Your task to perform on an android device: find which apps use the phone's location Image 0: 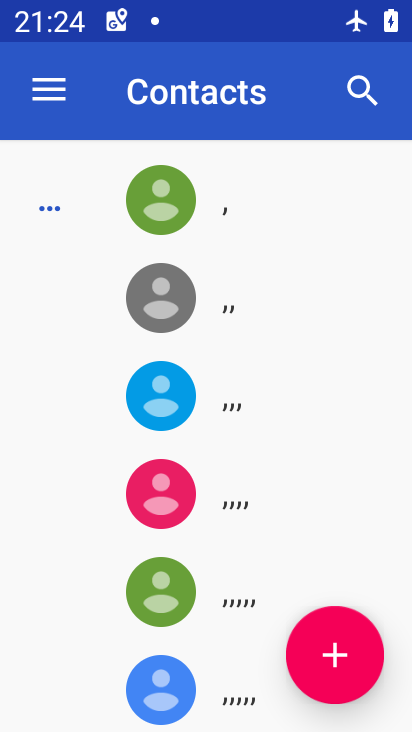
Step 0: press back button
Your task to perform on an android device: find which apps use the phone's location Image 1: 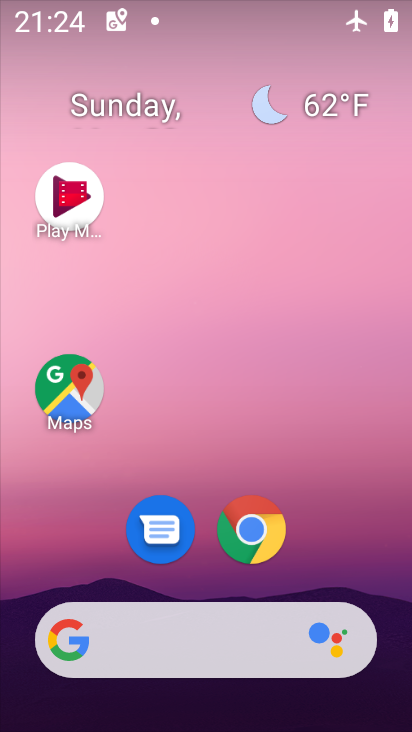
Step 1: drag from (228, 690) to (168, 162)
Your task to perform on an android device: find which apps use the phone's location Image 2: 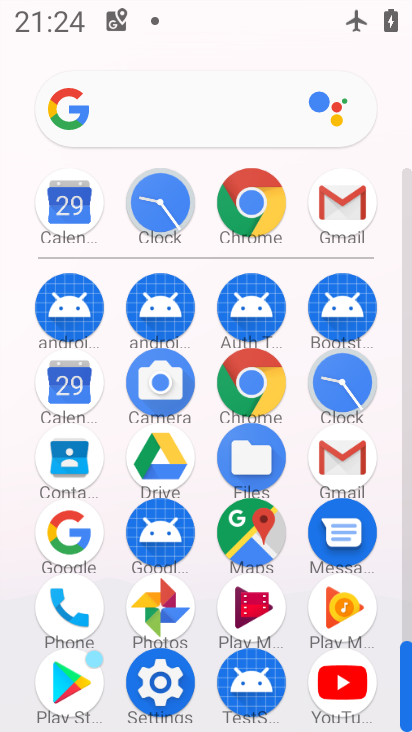
Step 2: click (67, 598)
Your task to perform on an android device: find which apps use the phone's location Image 3: 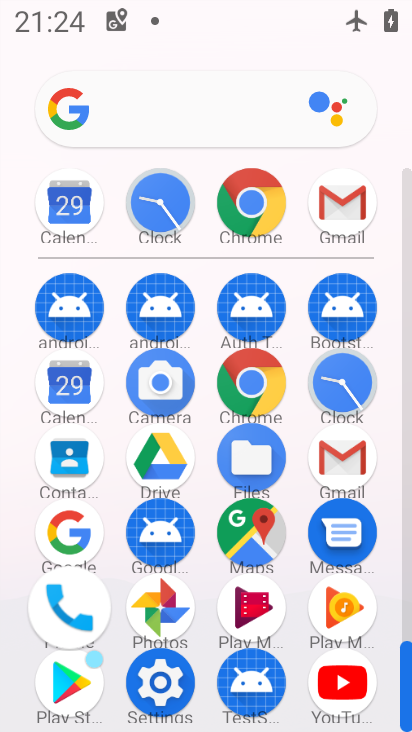
Step 3: click (55, 606)
Your task to perform on an android device: find which apps use the phone's location Image 4: 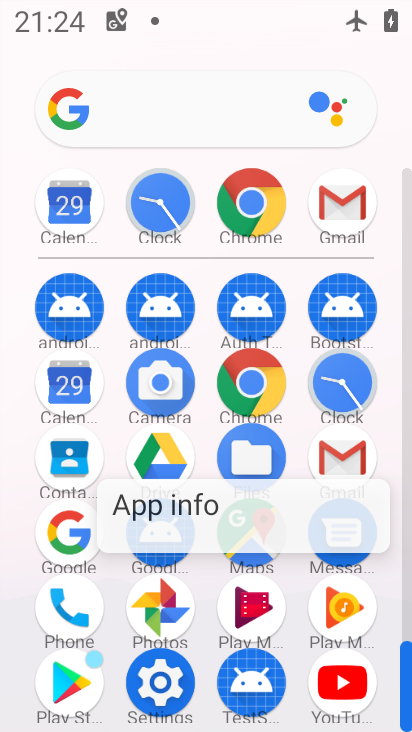
Step 4: click (54, 606)
Your task to perform on an android device: find which apps use the phone's location Image 5: 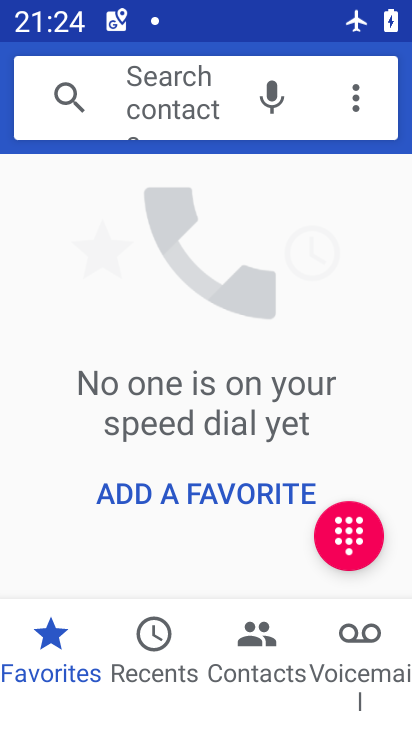
Step 5: press back button
Your task to perform on an android device: find which apps use the phone's location Image 6: 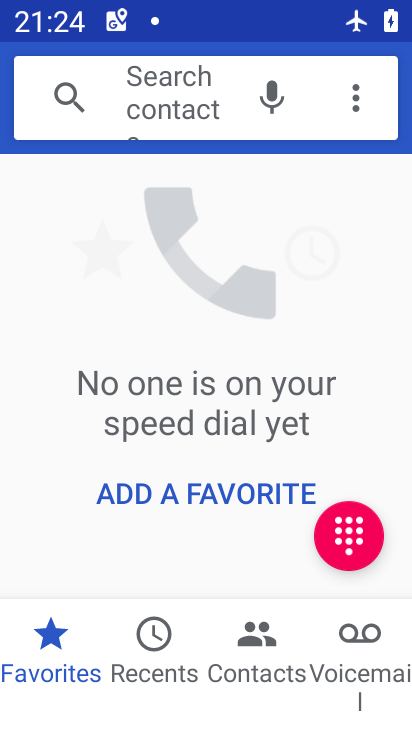
Step 6: press back button
Your task to perform on an android device: find which apps use the phone's location Image 7: 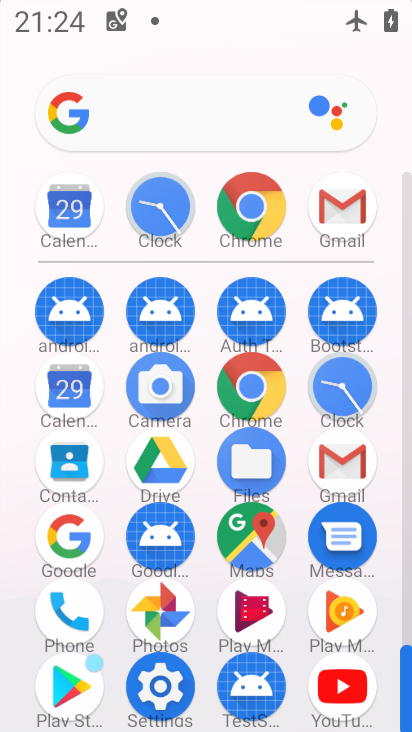
Step 7: press back button
Your task to perform on an android device: find which apps use the phone's location Image 8: 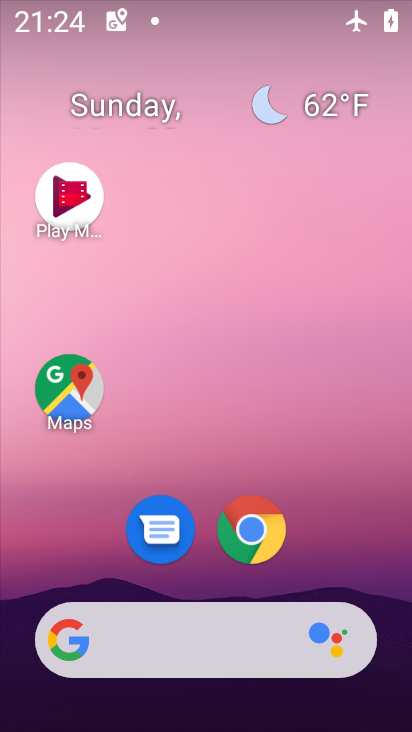
Step 8: drag from (224, 700) to (73, 4)
Your task to perform on an android device: find which apps use the phone's location Image 9: 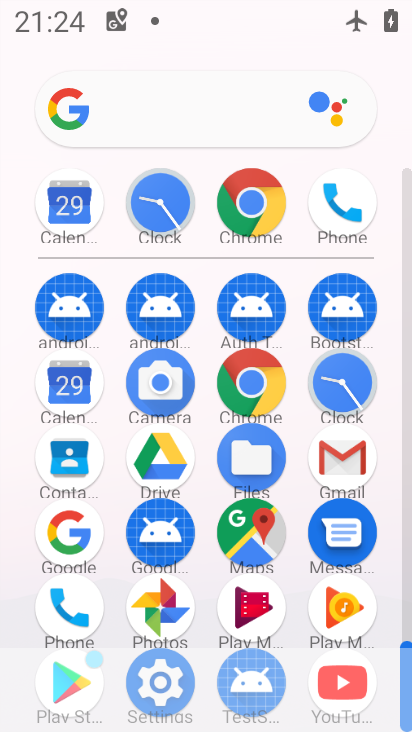
Step 9: drag from (204, 608) to (198, 255)
Your task to perform on an android device: find which apps use the phone's location Image 10: 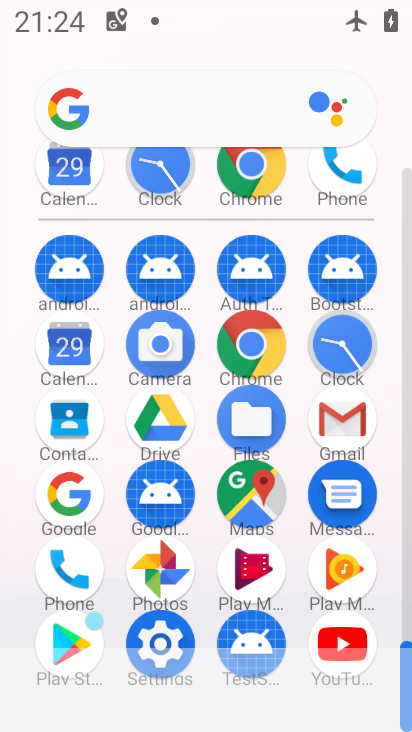
Step 10: drag from (200, 515) to (179, 123)
Your task to perform on an android device: find which apps use the phone's location Image 11: 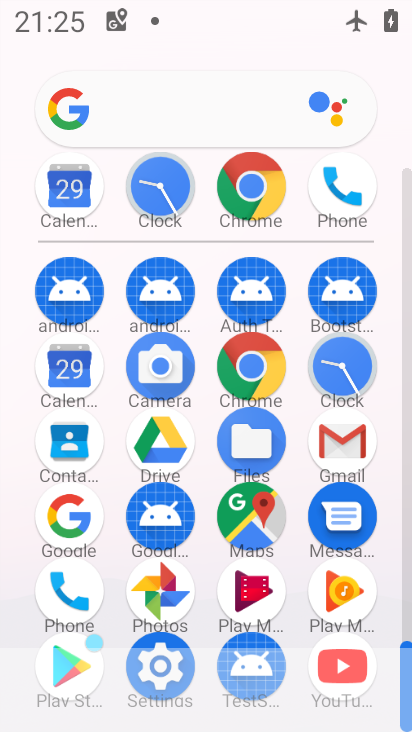
Step 11: drag from (177, 523) to (216, 176)
Your task to perform on an android device: find which apps use the phone's location Image 12: 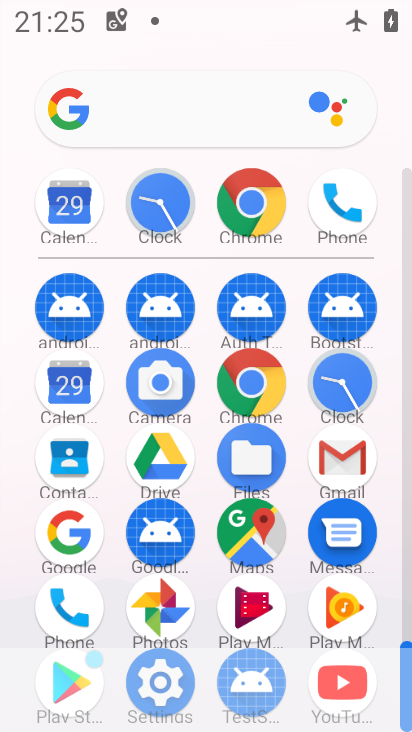
Step 12: drag from (230, 451) to (230, 225)
Your task to perform on an android device: find which apps use the phone's location Image 13: 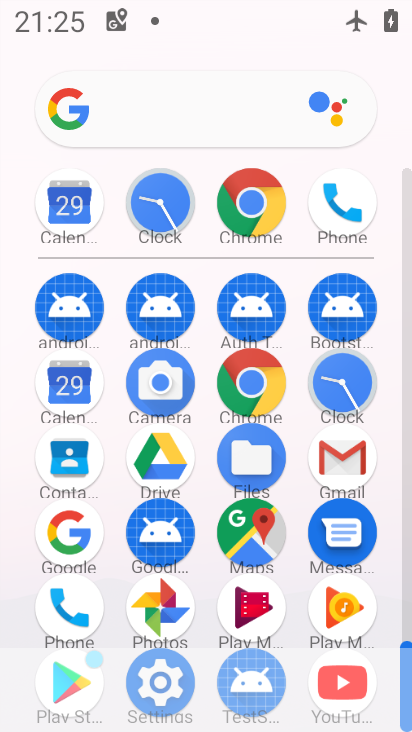
Step 13: drag from (196, 499) to (162, 241)
Your task to perform on an android device: find which apps use the phone's location Image 14: 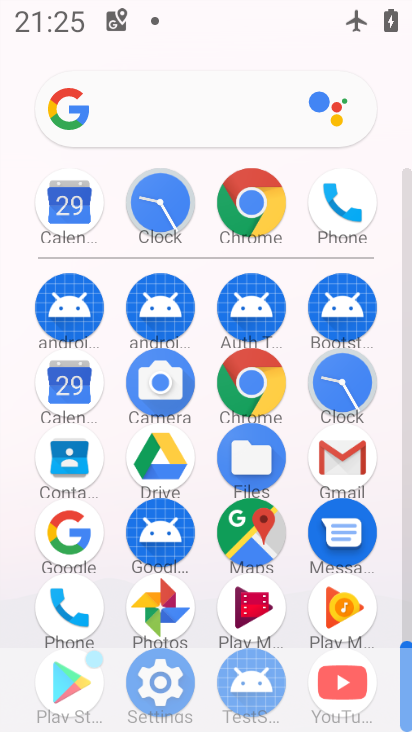
Step 14: drag from (207, 434) to (197, 209)
Your task to perform on an android device: find which apps use the phone's location Image 15: 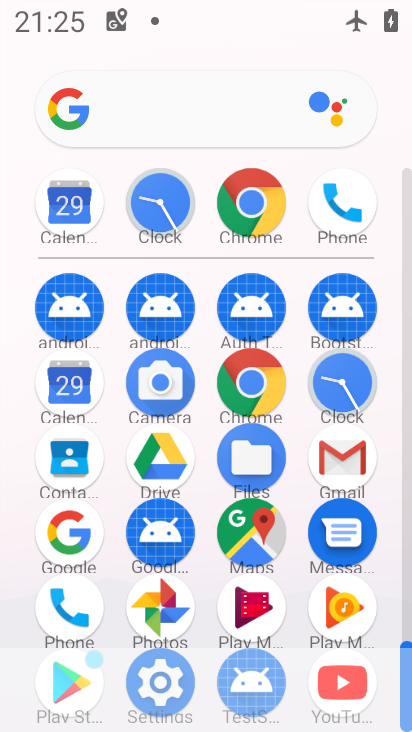
Step 15: drag from (200, 546) to (200, 207)
Your task to perform on an android device: find which apps use the phone's location Image 16: 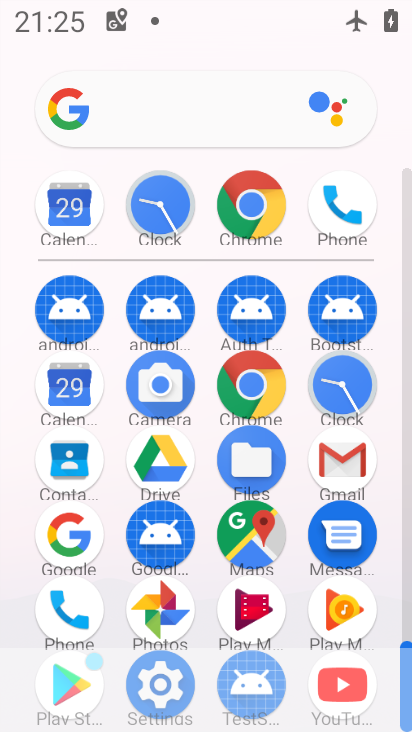
Step 16: drag from (185, 491) to (207, 130)
Your task to perform on an android device: find which apps use the phone's location Image 17: 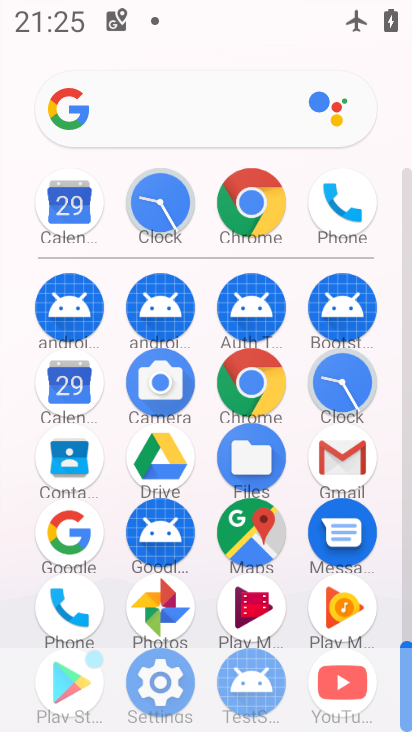
Step 17: drag from (251, 427) to (301, 120)
Your task to perform on an android device: find which apps use the phone's location Image 18: 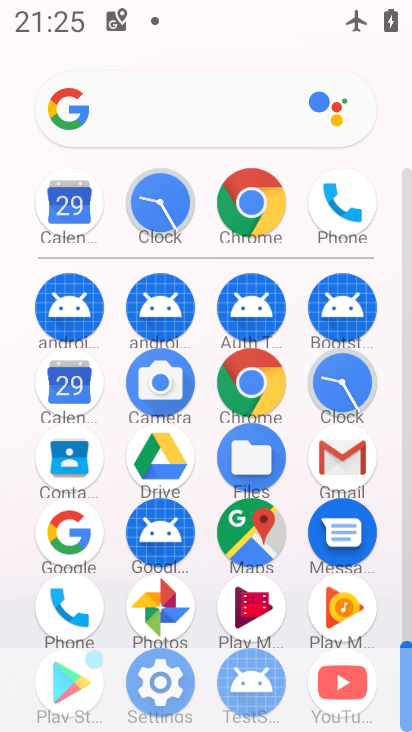
Step 18: drag from (209, 505) to (231, 178)
Your task to perform on an android device: find which apps use the phone's location Image 19: 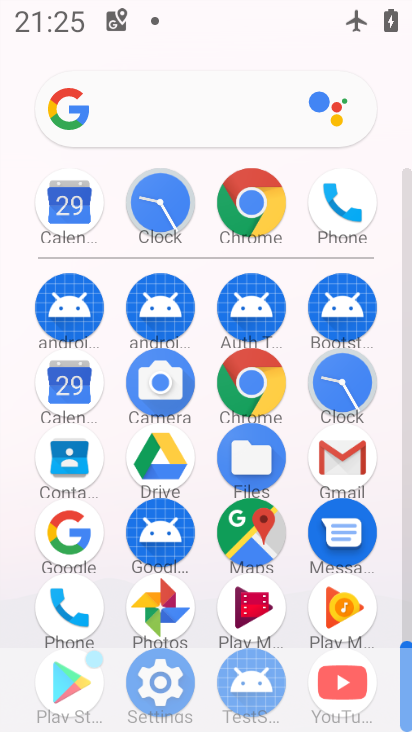
Step 19: drag from (223, 467) to (241, 118)
Your task to perform on an android device: find which apps use the phone's location Image 20: 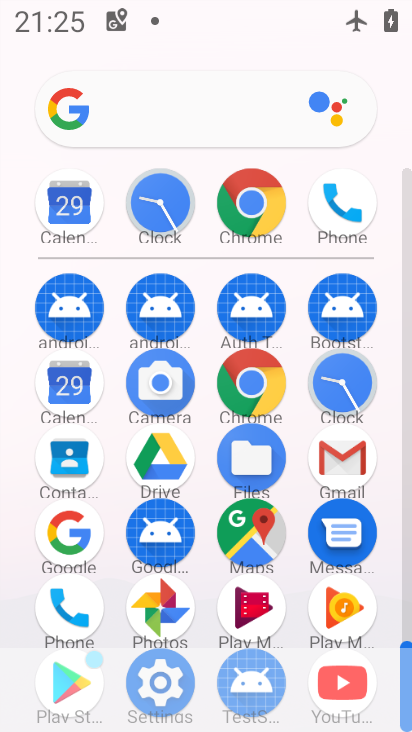
Step 20: drag from (182, 449) to (172, 224)
Your task to perform on an android device: find which apps use the phone's location Image 21: 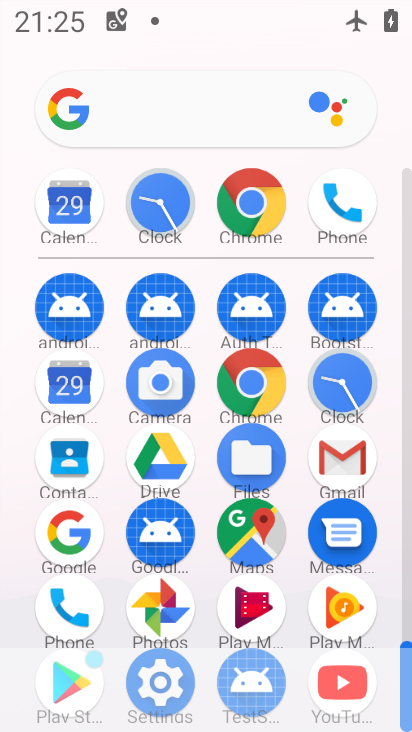
Step 21: drag from (183, 600) to (190, 206)
Your task to perform on an android device: find which apps use the phone's location Image 22: 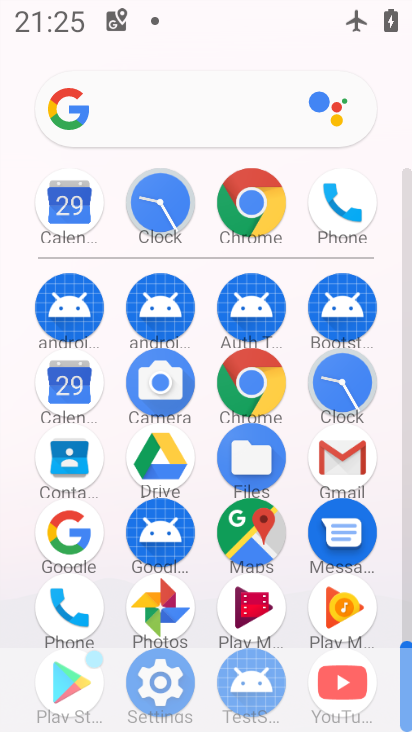
Step 22: drag from (203, 527) to (202, 249)
Your task to perform on an android device: find which apps use the phone's location Image 23: 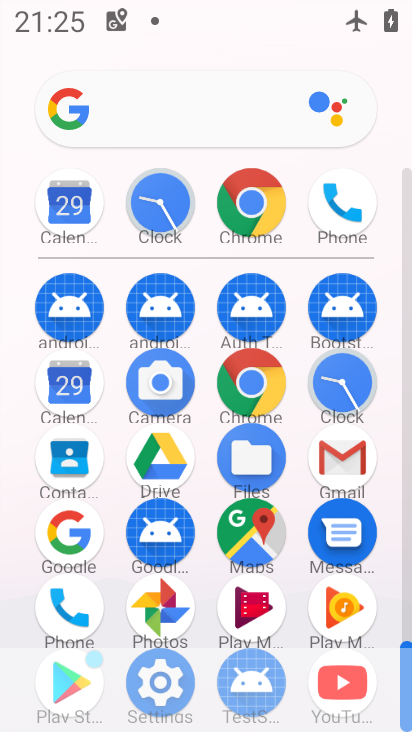
Step 23: drag from (192, 499) to (187, 157)
Your task to perform on an android device: find which apps use the phone's location Image 24: 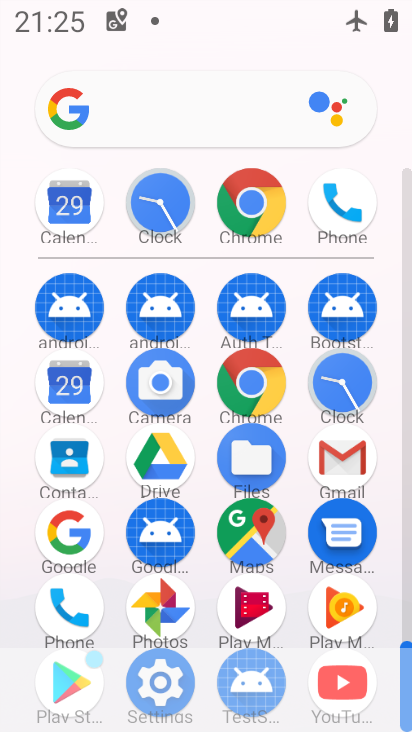
Step 24: click (151, 648)
Your task to perform on an android device: find which apps use the phone's location Image 25: 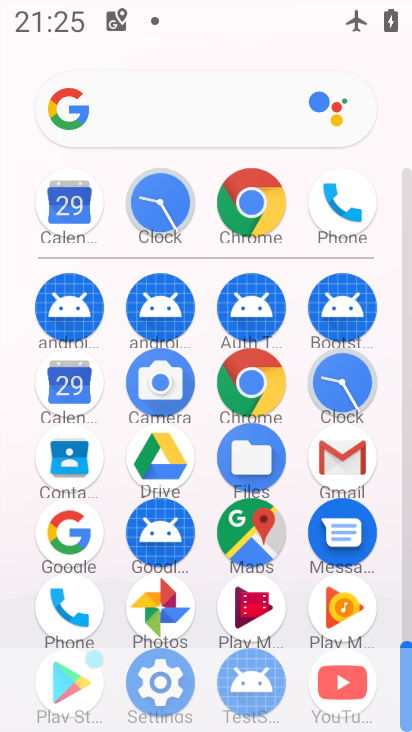
Step 25: click (160, 639)
Your task to perform on an android device: find which apps use the phone's location Image 26: 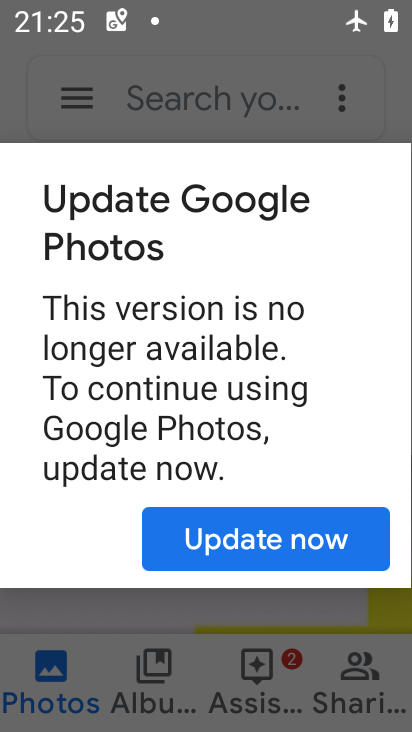
Step 26: press back button
Your task to perform on an android device: find which apps use the phone's location Image 27: 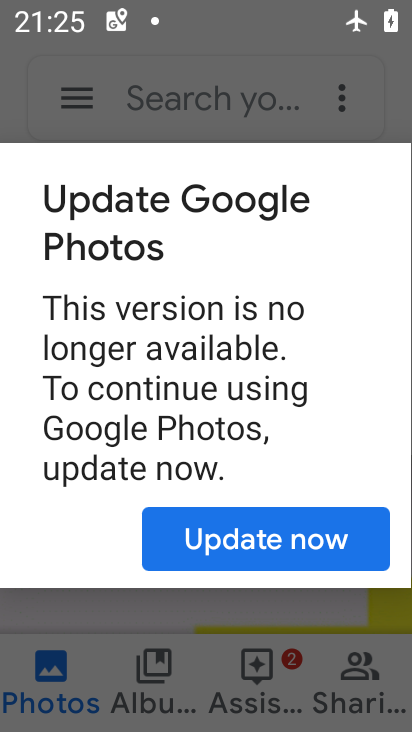
Step 27: press back button
Your task to perform on an android device: find which apps use the phone's location Image 28: 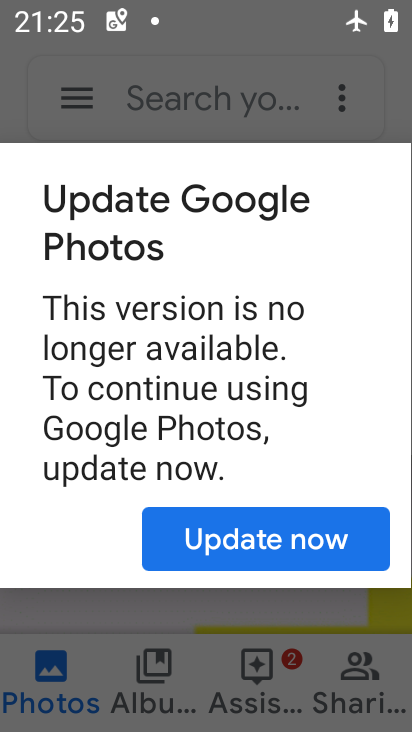
Step 28: press home button
Your task to perform on an android device: find which apps use the phone's location Image 29: 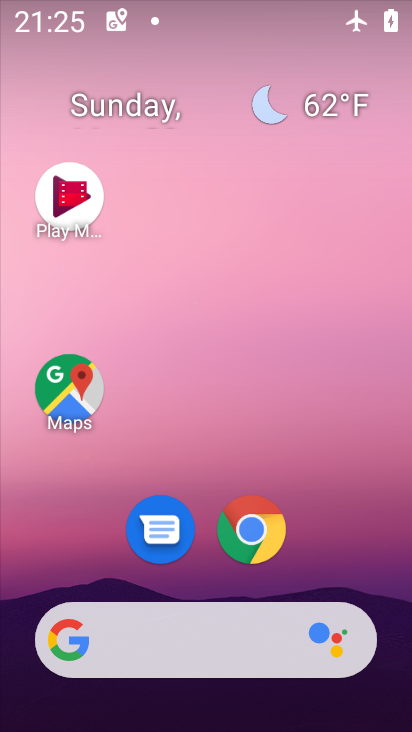
Step 29: drag from (234, 693) to (234, 46)
Your task to perform on an android device: find which apps use the phone's location Image 30: 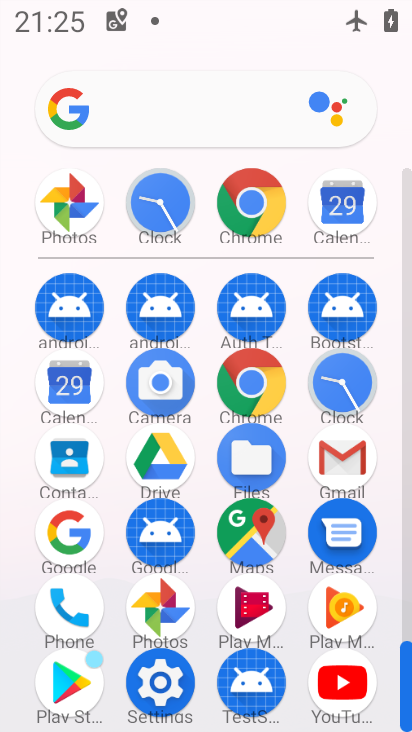
Step 30: click (153, 688)
Your task to perform on an android device: find which apps use the phone's location Image 31: 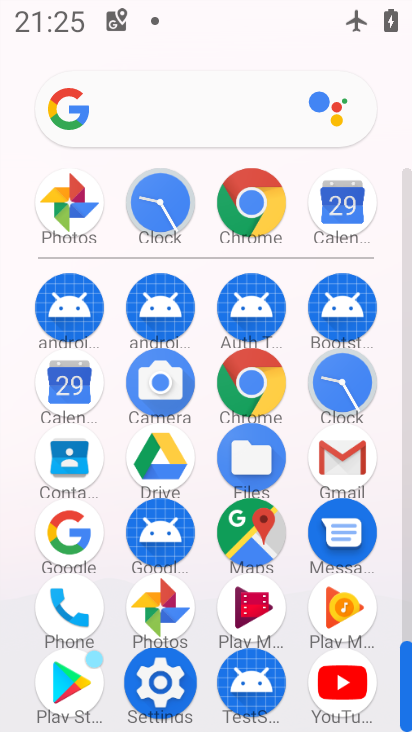
Step 31: click (152, 687)
Your task to perform on an android device: find which apps use the phone's location Image 32: 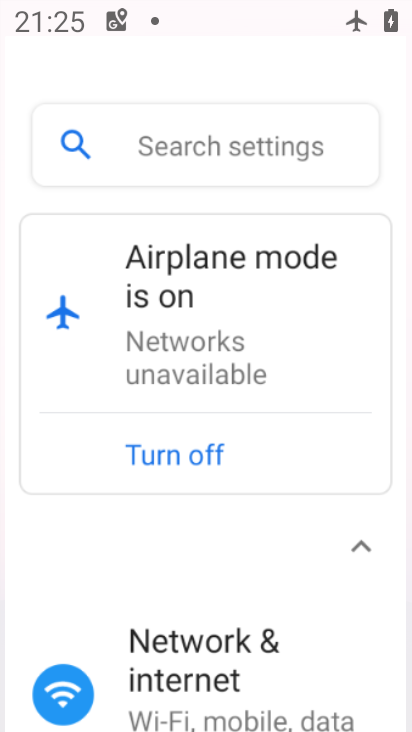
Step 32: click (148, 682)
Your task to perform on an android device: find which apps use the phone's location Image 33: 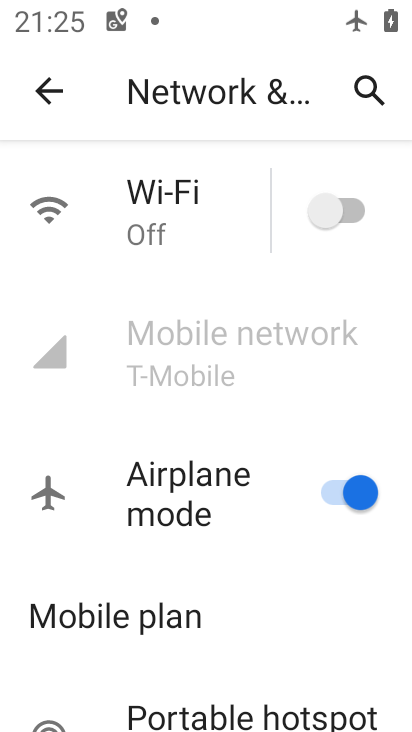
Step 33: drag from (186, 511) to (177, 77)
Your task to perform on an android device: find which apps use the phone's location Image 34: 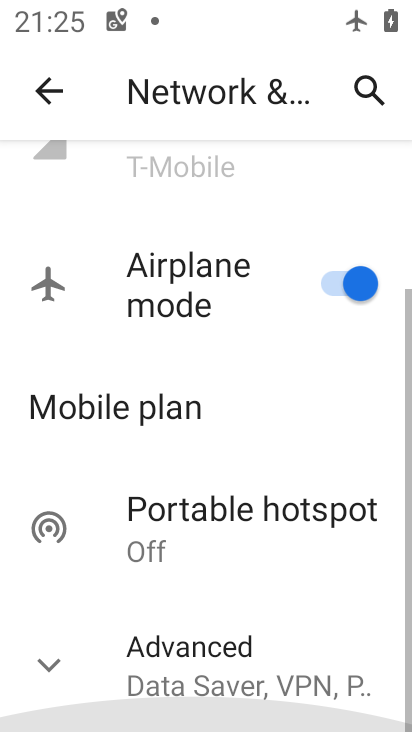
Step 34: drag from (177, 418) to (177, 10)
Your task to perform on an android device: find which apps use the phone's location Image 35: 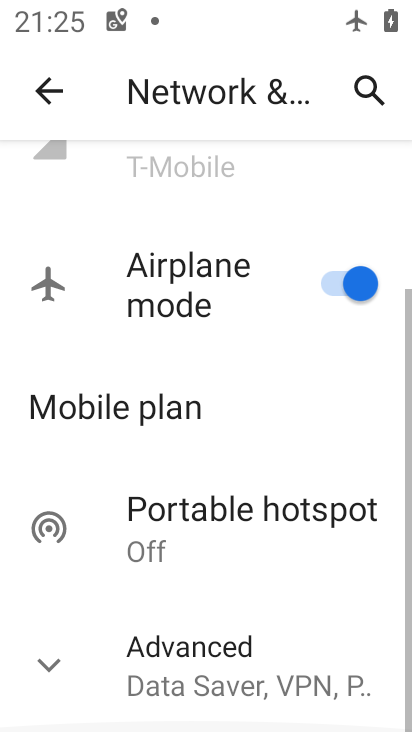
Step 35: click (216, 61)
Your task to perform on an android device: find which apps use the phone's location Image 36: 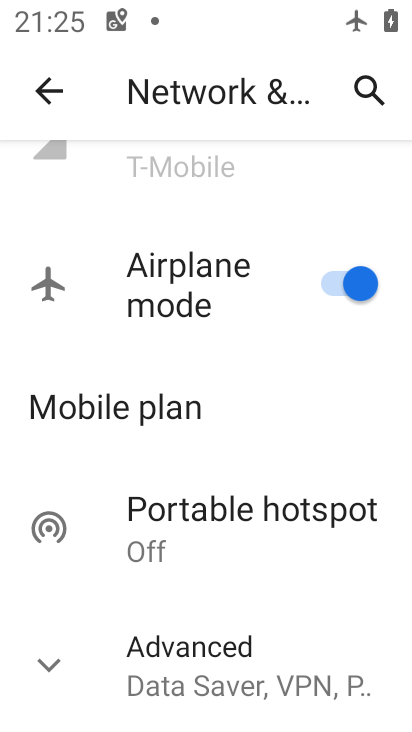
Step 36: drag from (219, 316) to (224, 21)
Your task to perform on an android device: find which apps use the phone's location Image 37: 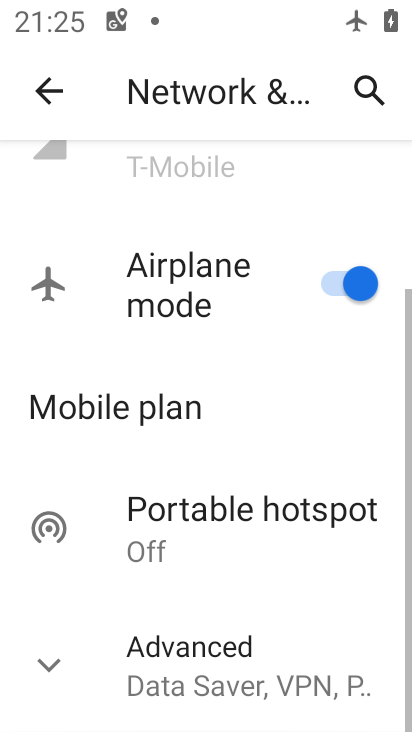
Step 37: drag from (184, 504) to (181, 69)
Your task to perform on an android device: find which apps use the phone's location Image 38: 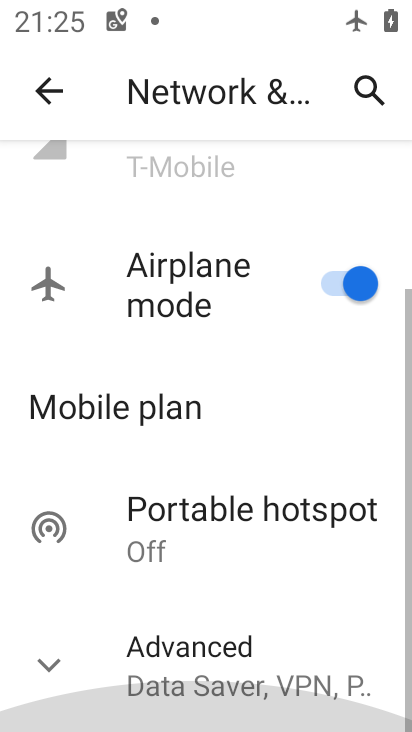
Step 38: drag from (200, 472) to (193, 33)
Your task to perform on an android device: find which apps use the phone's location Image 39: 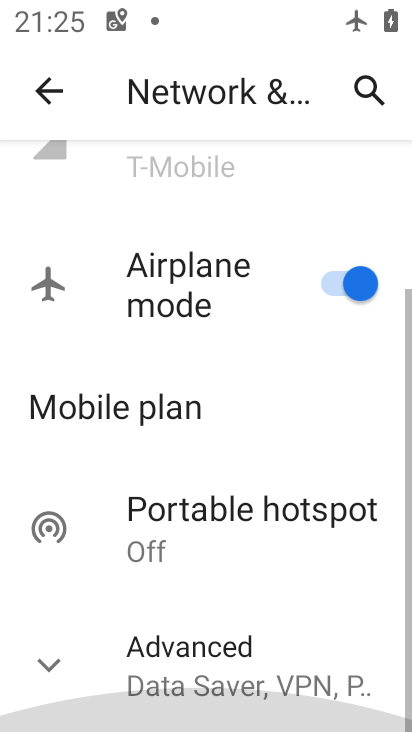
Step 39: drag from (198, 274) to (194, 30)
Your task to perform on an android device: find which apps use the phone's location Image 40: 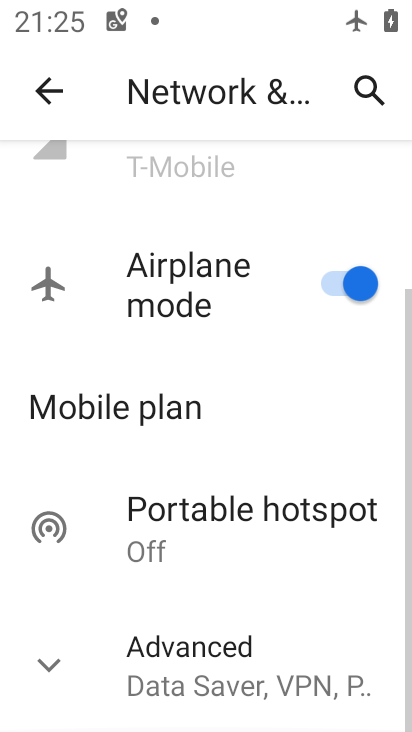
Step 40: drag from (220, 521) to (205, 55)
Your task to perform on an android device: find which apps use the phone's location Image 41: 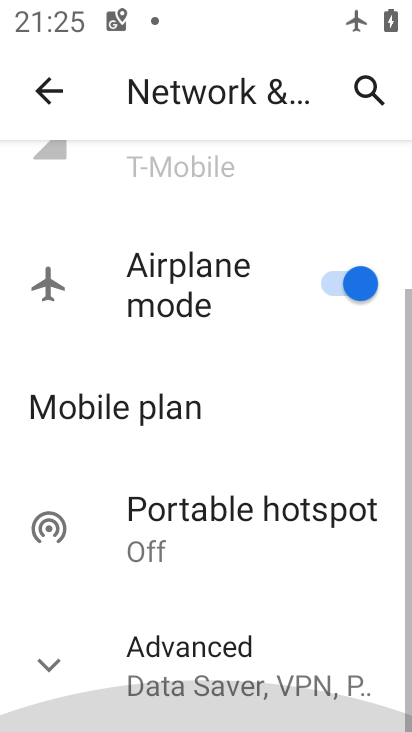
Step 41: drag from (179, 553) to (116, 22)
Your task to perform on an android device: find which apps use the phone's location Image 42: 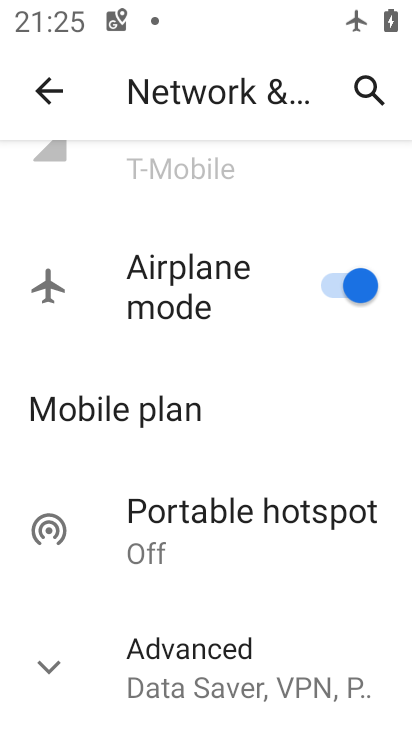
Step 42: click (42, 99)
Your task to perform on an android device: find which apps use the phone's location Image 43: 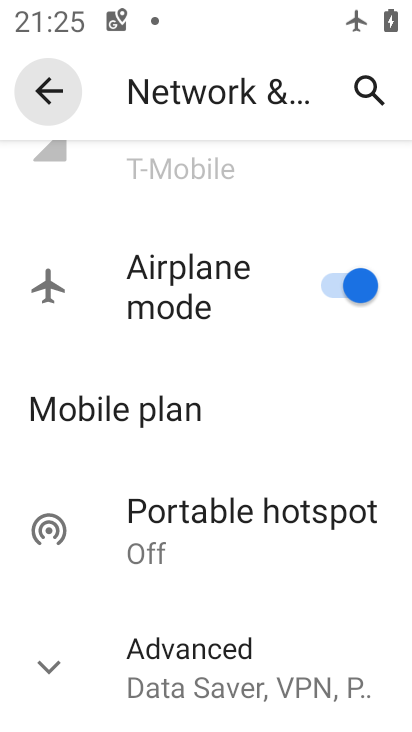
Step 43: click (42, 99)
Your task to perform on an android device: find which apps use the phone's location Image 44: 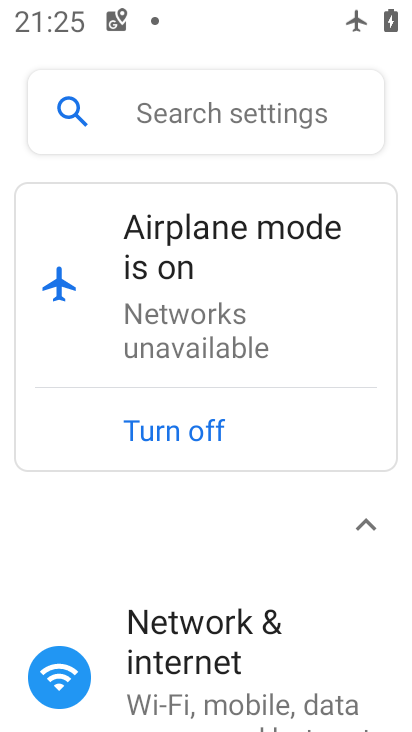
Step 44: drag from (181, 563) to (153, 203)
Your task to perform on an android device: find which apps use the phone's location Image 45: 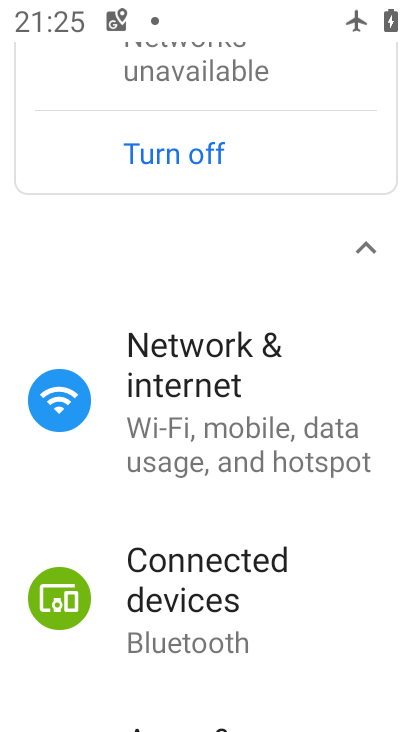
Step 45: drag from (187, 483) to (187, 9)
Your task to perform on an android device: find which apps use the phone's location Image 46: 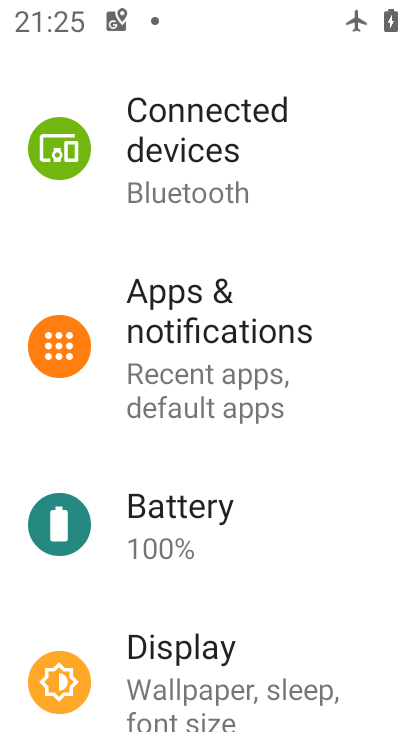
Step 46: drag from (142, 419) to (178, 173)
Your task to perform on an android device: find which apps use the phone's location Image 47: 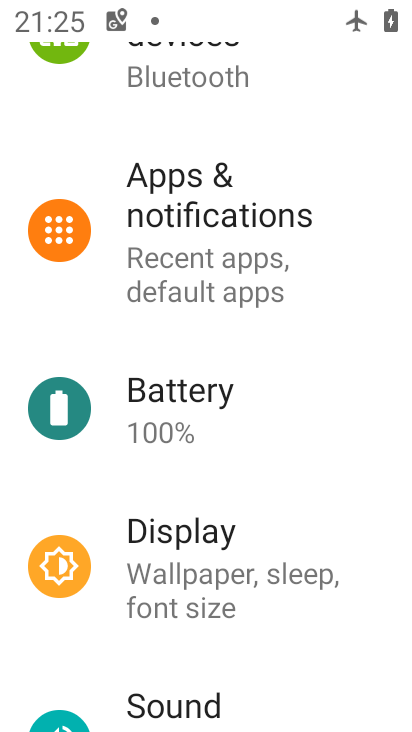
Step 47: drag from (275, 347) to (275, 55)
Your task to perform on an android device: find which apps use the phone's location Image 48: 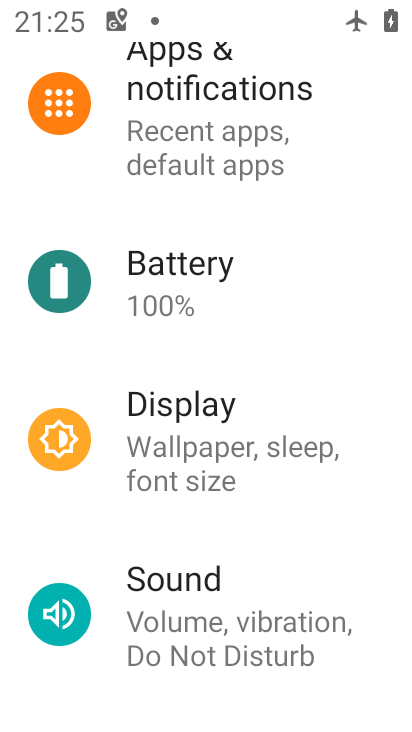
Step 48: drag from (110, 272) to (132, 21)
Your task to perform on an android device: find which apps use the phone's location Image 49: 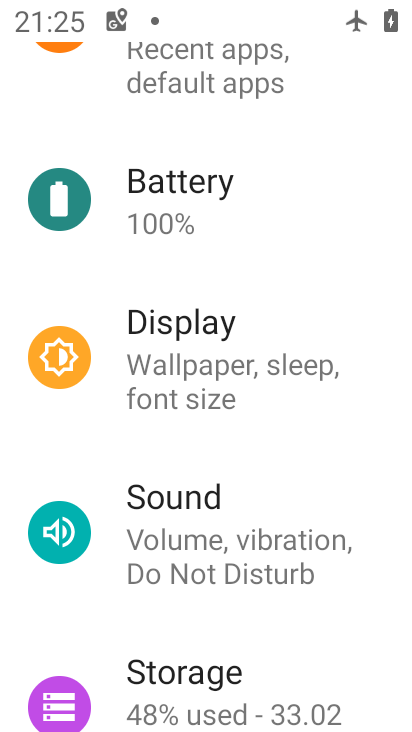
Step 49: drag from (191, 537) to (205, 194)
Your task to perform on an android device: find which apps use the phone's location Image 50: 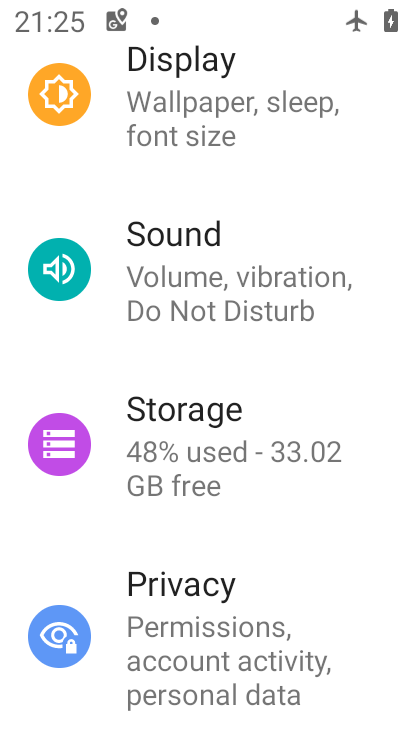
Step 50: drag from (238, 480) to (238, 84)
Your task to perform on an android device: find which apps use the phone's location Image 51: 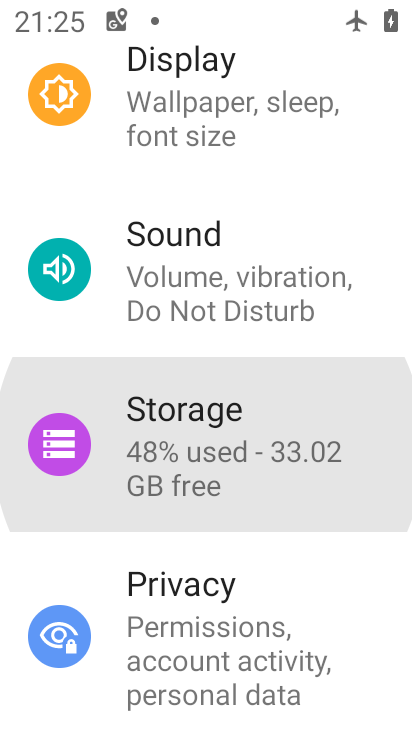
Step 51: drag from (201, 534) to (247, 323)
Your task to perform on an android device: find which apps use the phone's location Image 52: 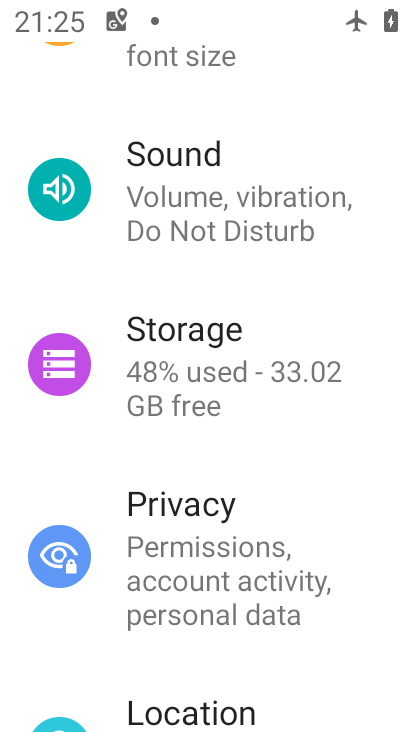
Step 52: drag from (311, 545) to (305, 152)
Your task to perform on an android device: find which apps use the phone's location Image 53: 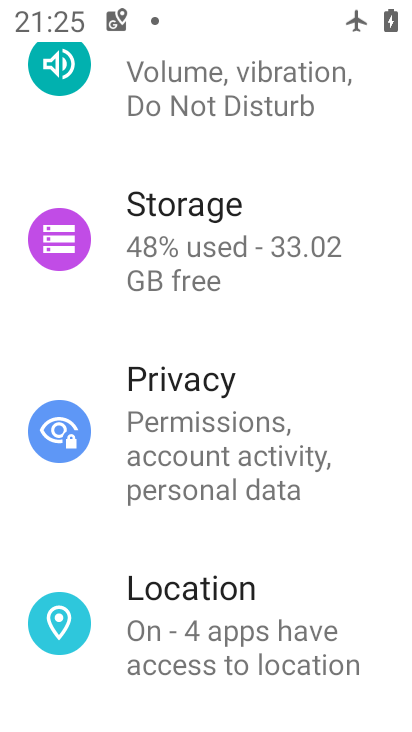
Step 53: click (192, 630)
Your task to perform on an android device: find which apps use the phone's location Image 54: 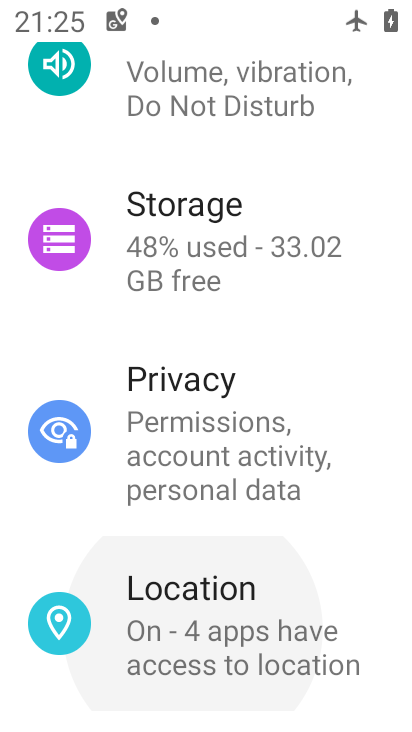
Step 54: click (192, 631)
Your task to perform on an android device: find which apps use the phone's location Image 55: 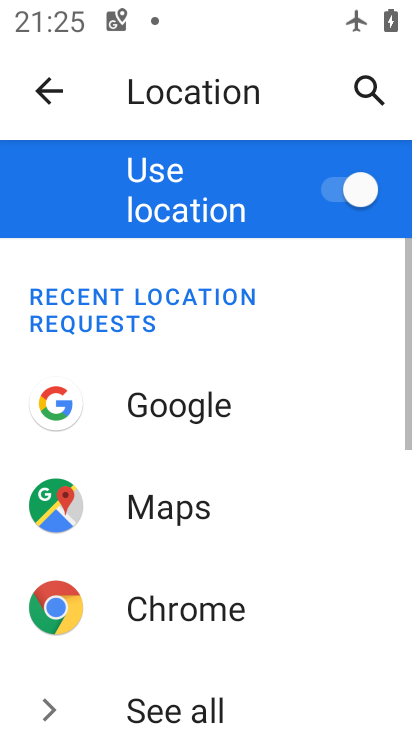
Step 55: drag from (232, 483) to (231, 118)
Your task to perform on an android device: find which apps use the phone's location Image 56: 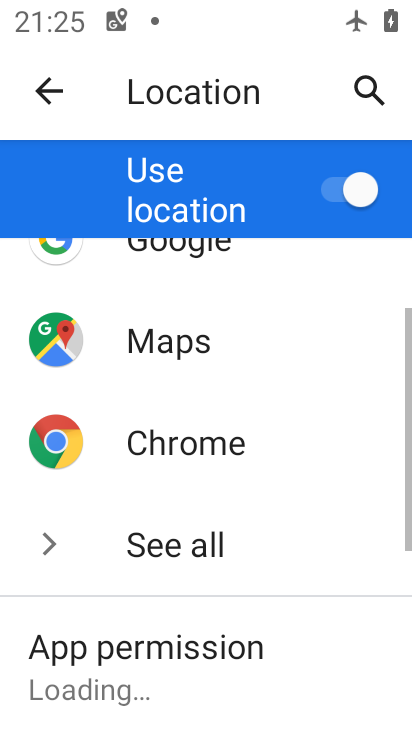
Step 56: drag from (219, 505) to (219, 24)
Your task to perform on an android device: find which apps use the phone's location Image 57: 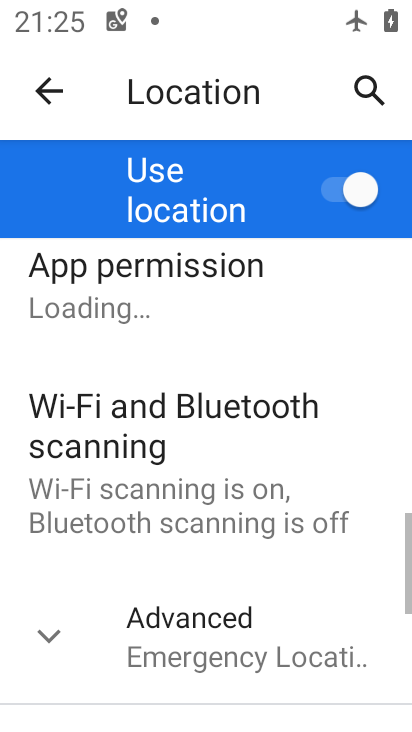
Step 57: drag from (284, 573) to (273, 36)
Your task to perform on an android device: find which apps use the phone's location Image 58: 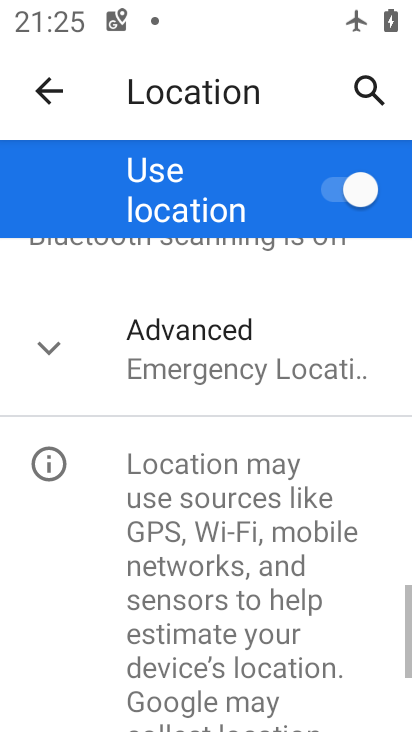
Step 58: drag from (241, 448) to (218, 41)
Your task to perform on an android device: find which apps use the phone's location Image 59: 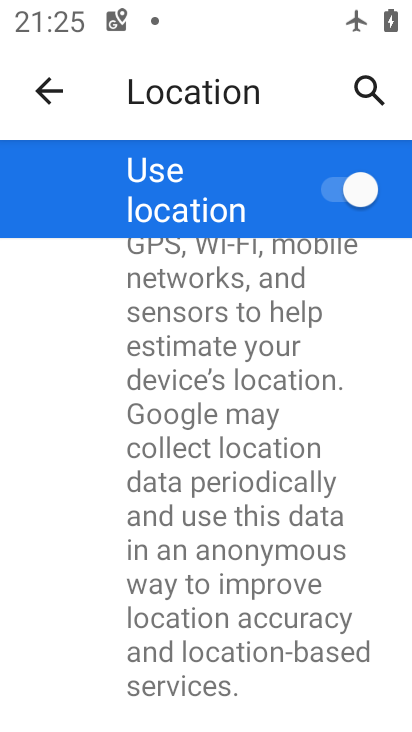
Step 59: drag from (154, 324) to (192, 612)
Your task to perform on an android device: find which apps use the phone's location Image 60: 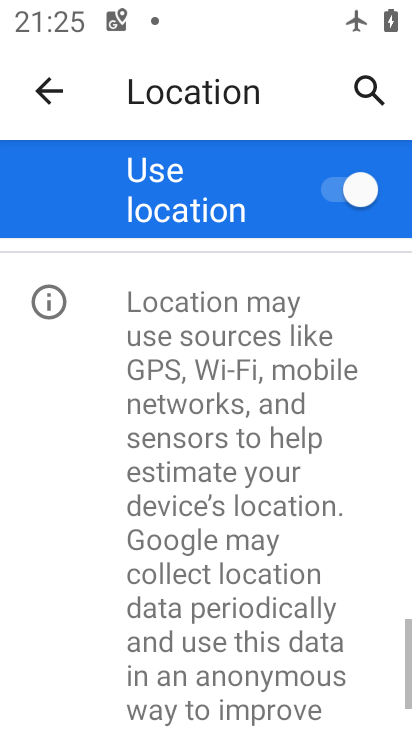
Step 60: drag from (172, 302) to (209, 625)
Your task to perform on an android device: find which apps use the phone's location Image 61: 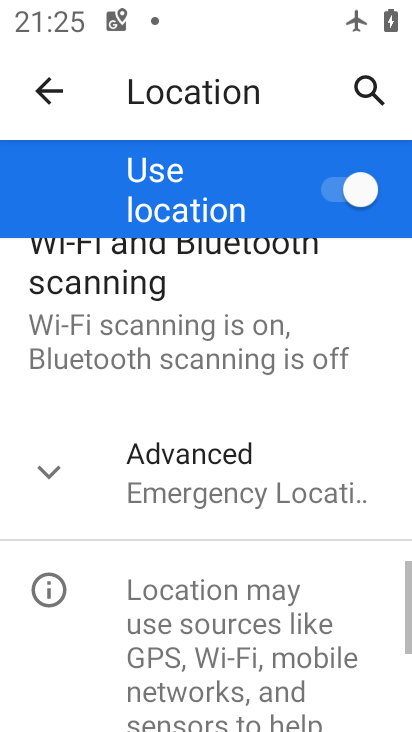
Step 61: drag from (204, 406) to (235, 592)
Your task to perform on an android device: find which apps use the phone's location Image 62: 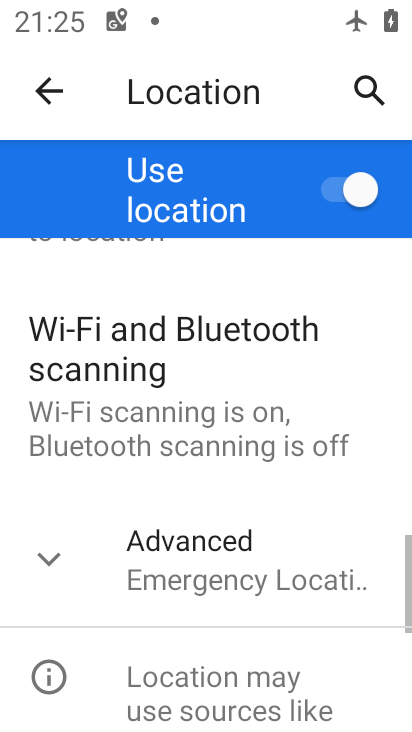
Step 62: drag from (192, 358) to (228, 638)
Your task to perform on an android device: find which apps use the phone's location Image 63: 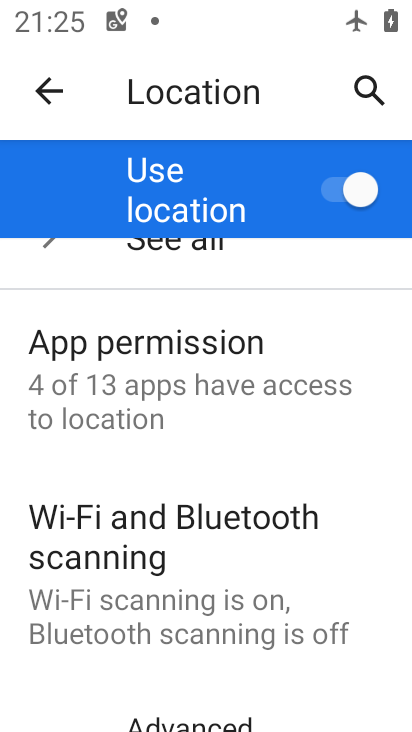
Step 63: click (164, 362)
Your task to perform on an android device: find which apps use the phone's location Image 64: 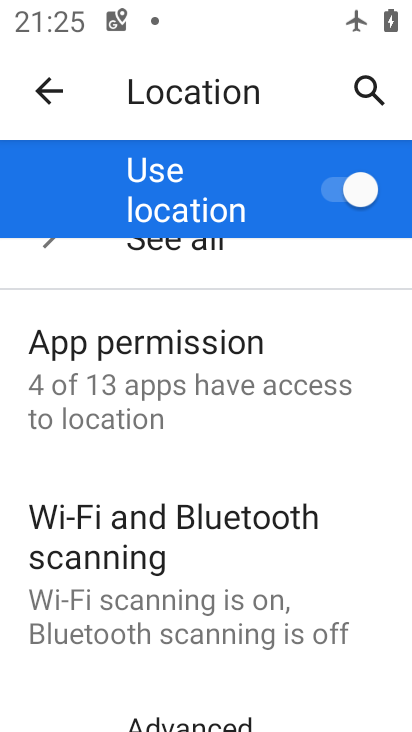
Step 64: click (164, 362)
Your task to perform on an android device: find which apps use the phone's location Image 65: 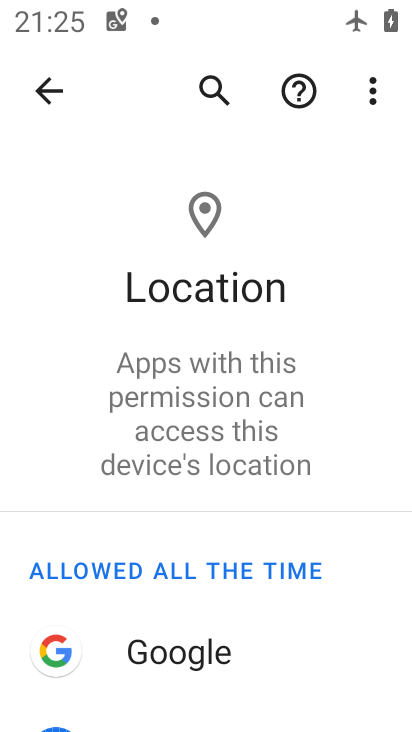
Step 65: task complete